Your task to perform on an android device: turn off javascript in the chrome app Image 0: 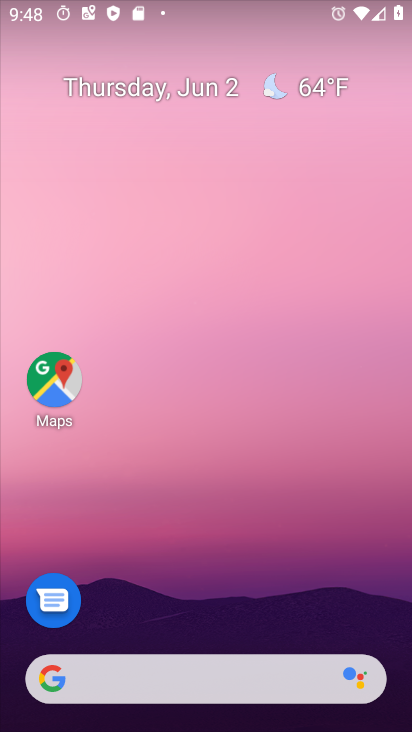
Step 0: drag from (218, 565) to (256, 4)
Your task to perform on an android device: turn off javascript in the chrome app Image 1: 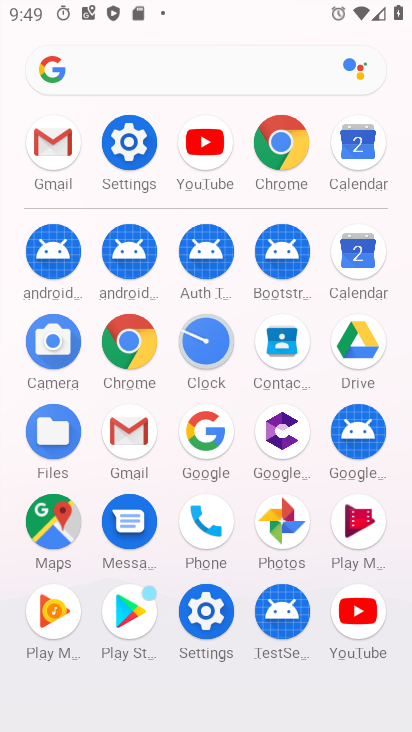
Step 1: click (281, 143)
Your task to perform on an android device: turn off javascript in the chrome app Image 2: 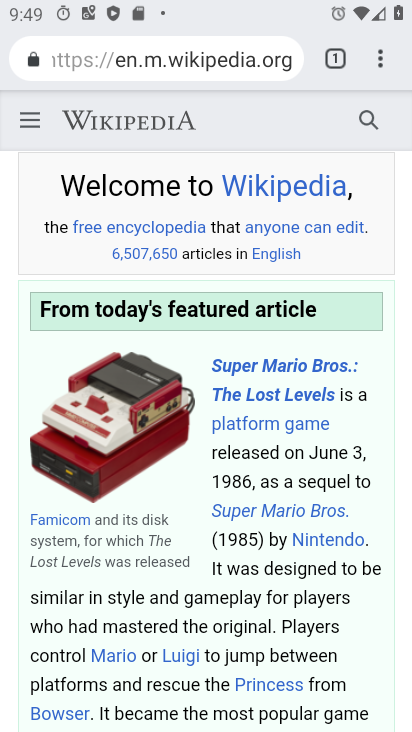
Step 2: click (376, 59)
Your task to perform on an android device: turn off javascript in the chrome app Image 3: 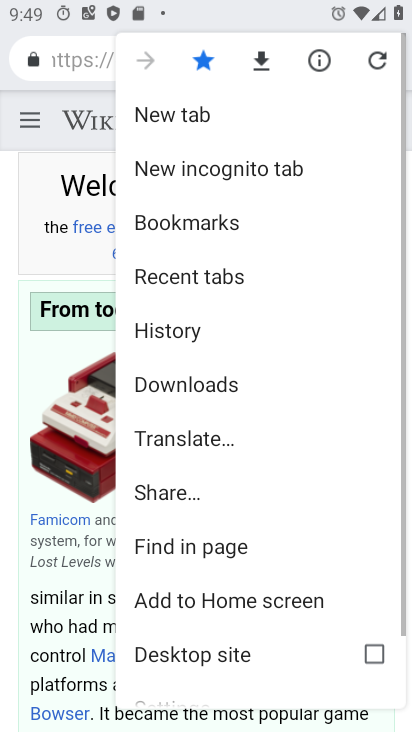
Step 3: drag from (204, 584) to (220, 305)
Your task to perform on an android device: turn off javascript in the chrome app Image 4: 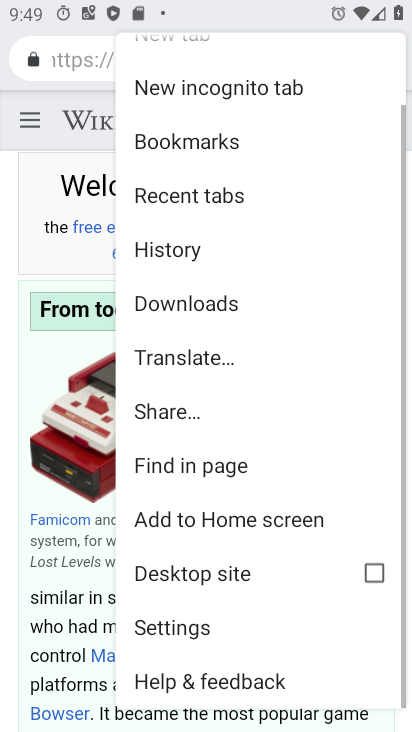
Step 4: click (208, 624)
Your task to perform on an android device: turn off javascript in the chrome app Image 5: 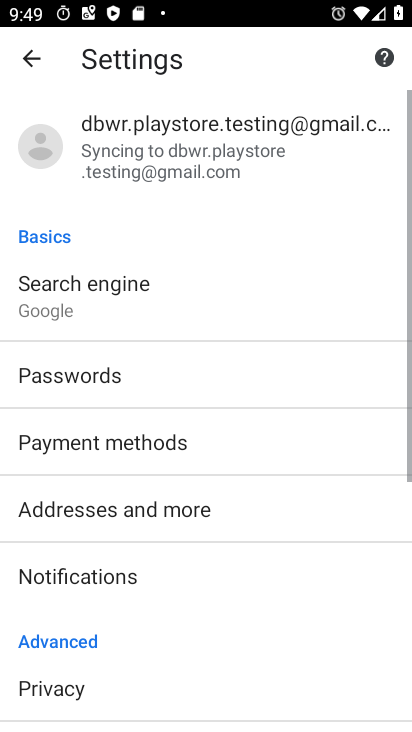
Step 5: drag from (208, 624) to (193, 195)
Your task to perform on an android device: turn off javascript in the chrome app Image 6: 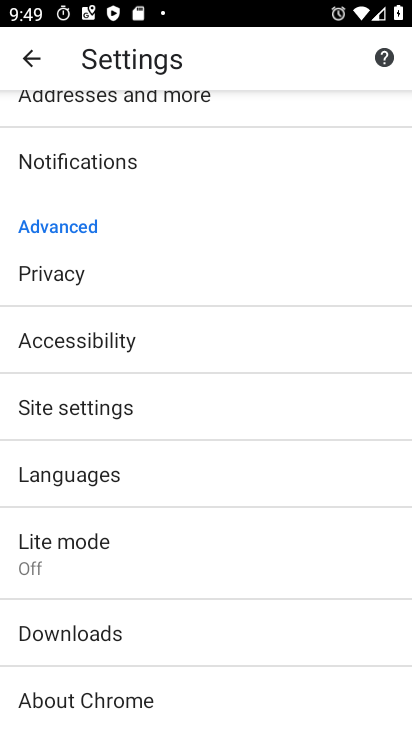
Step 6: click (84, 407)
Your task to perform on an android device: turn off javascript in the chrome app Image 7: 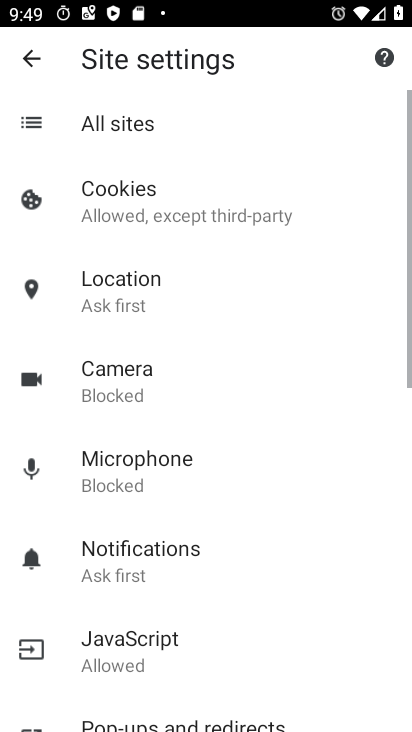
Step 7: click (235, 645)
Your task to perform on an android device: turn off javascript in the chrome app Image 8: 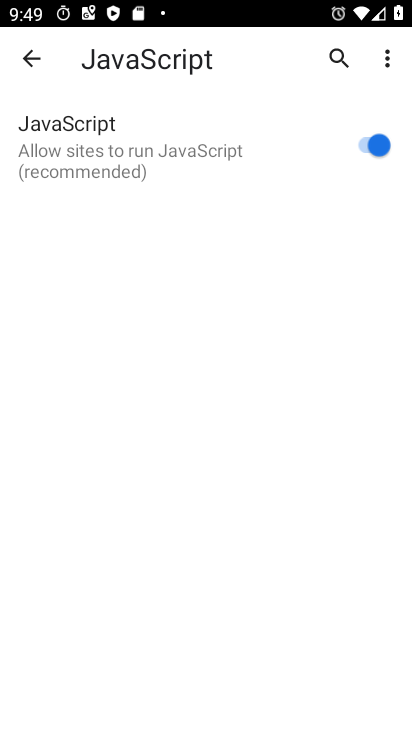
Step 8: click (373, 145)
Your task to perform on an android device: turn off javascript in the chrome app Image 9: 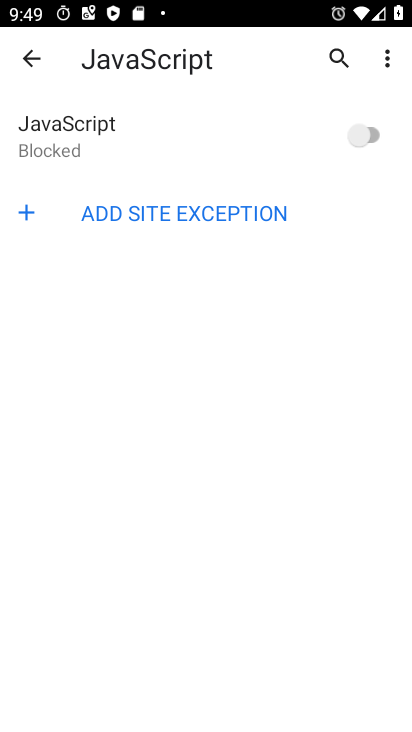
Step 9: task complete